Your task to perform on an android device: What is the average speed of a car? Image 0: 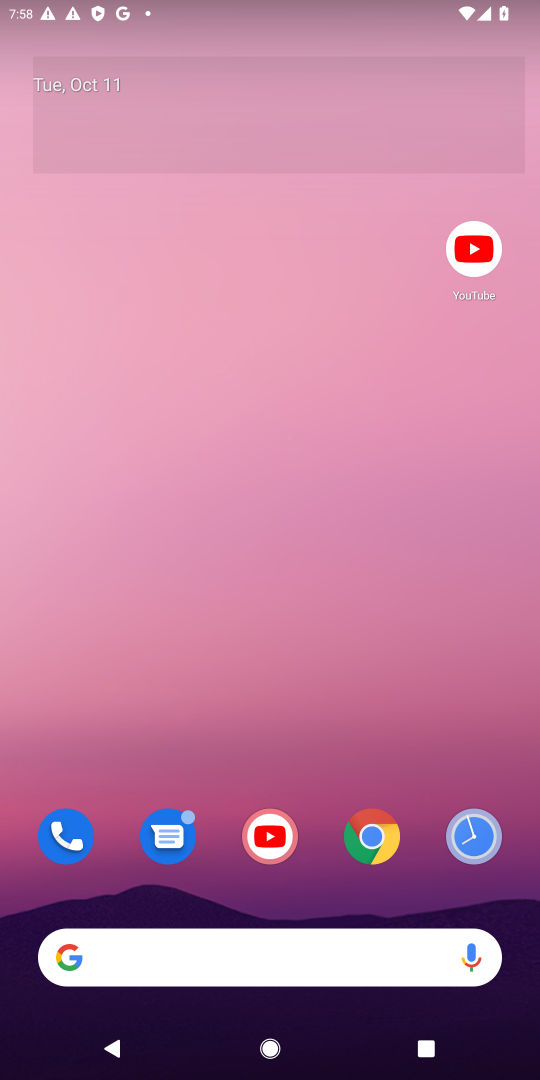
Step 0: click (373, 833)
Your task to perform on an android device: What is the average speed of a car? Image 1: 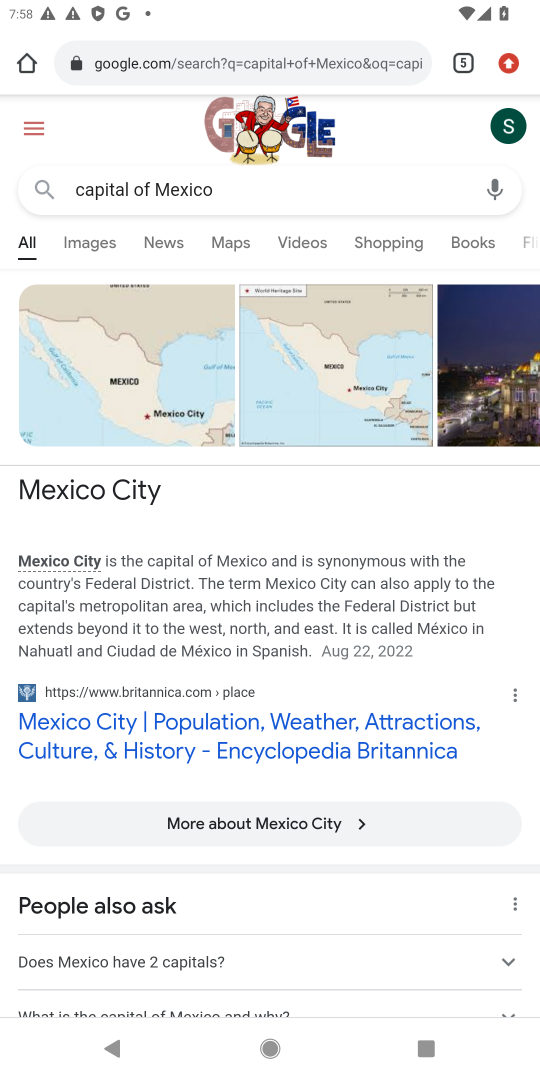
Step 1: click (304, 66)
Your task to perform on an android device: What is the average speed of a car? Image 2: 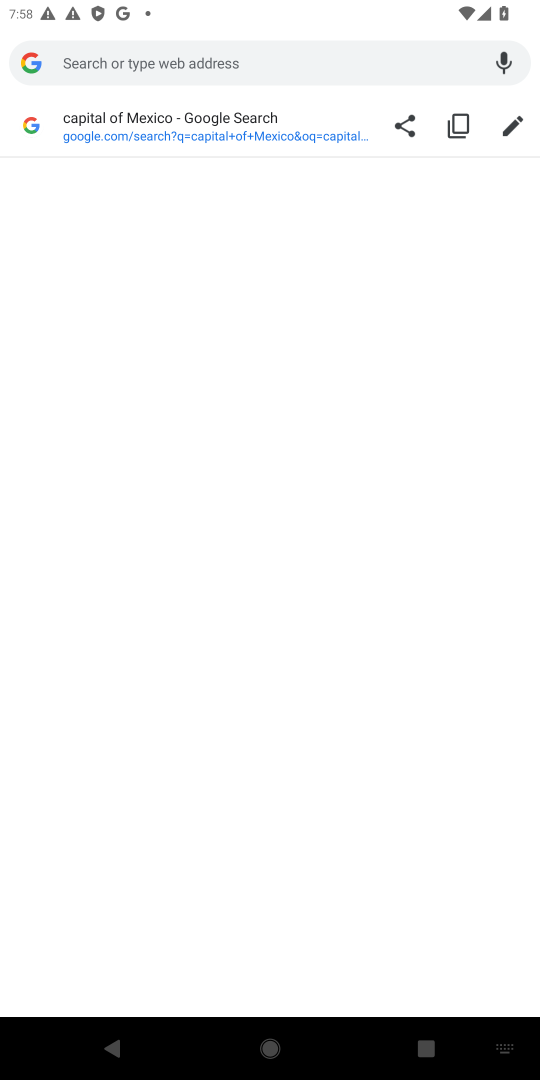
Step 2: type "average speed of a car"
Your task to perform on an android device: What is the average speed of a car? Image 3: 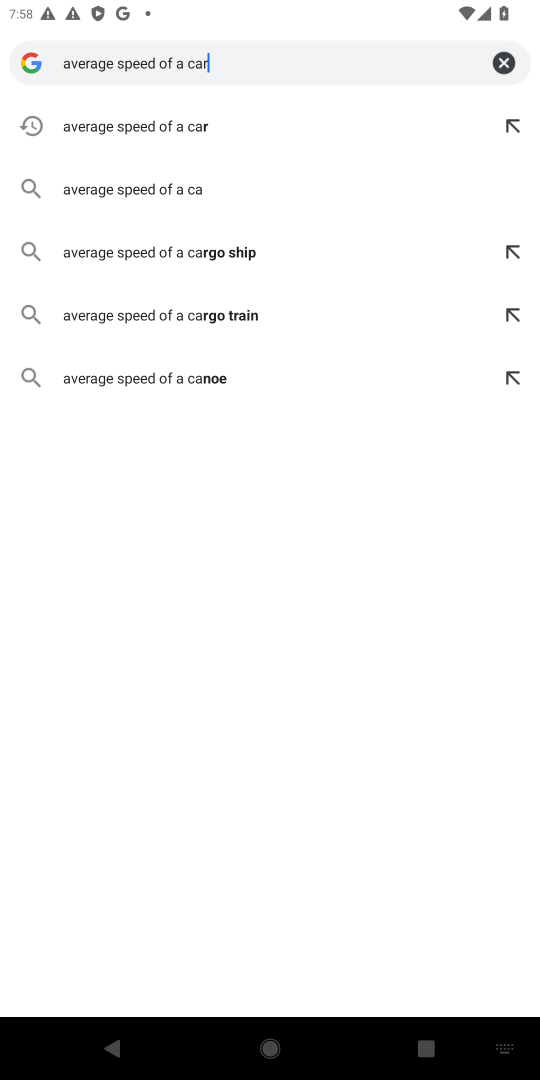
Step 3: press enter
Your task to perform on an android device: What is the average speed of a car? Image 4: 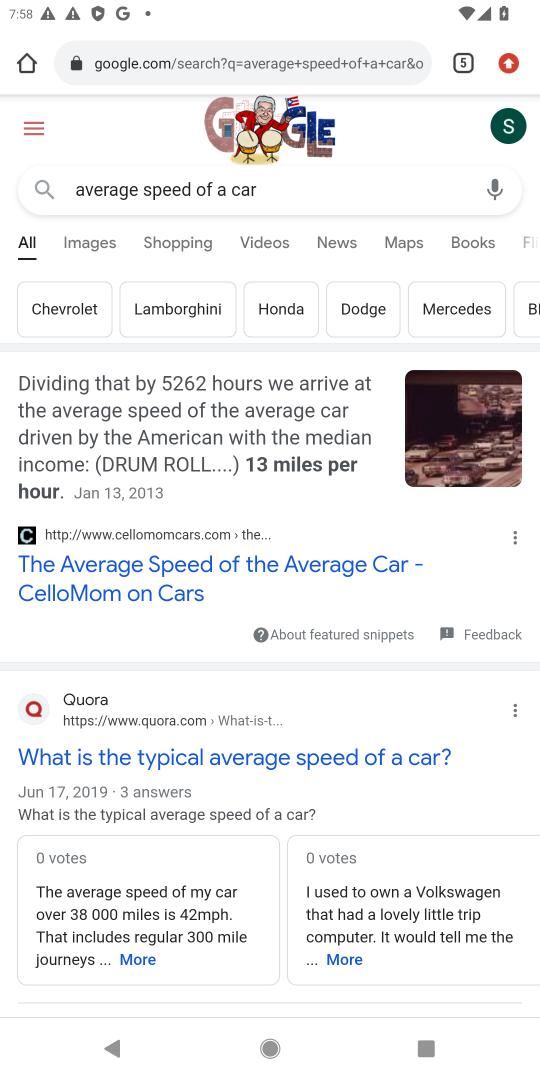
Step 4: click (319, 568)
Your task to perform on an android device: What is the average speed of a car? Image 5: 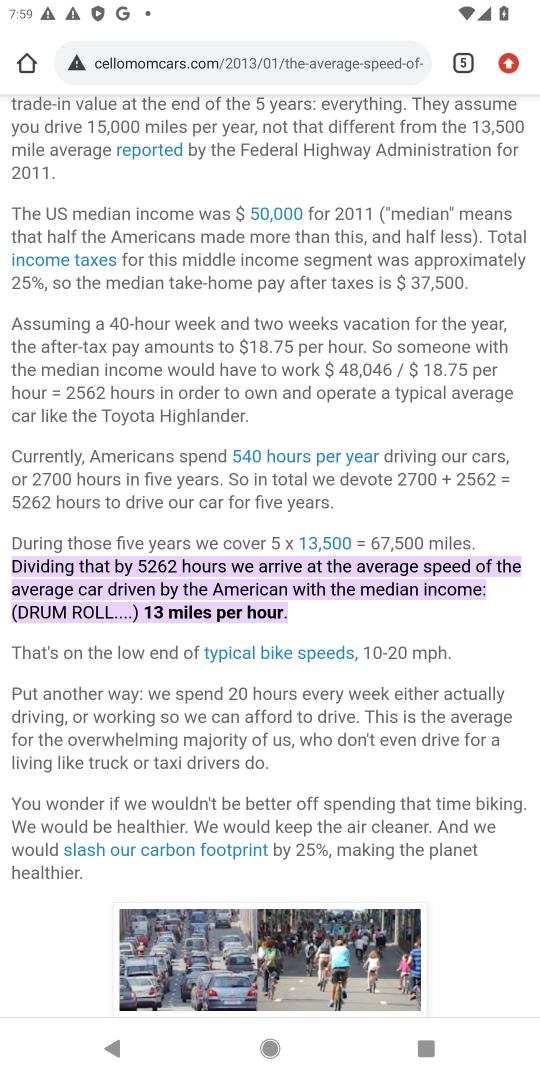
Step 5: task complete